Your task to perform on an android device: What's the weather going to be this weekend? Image 0: 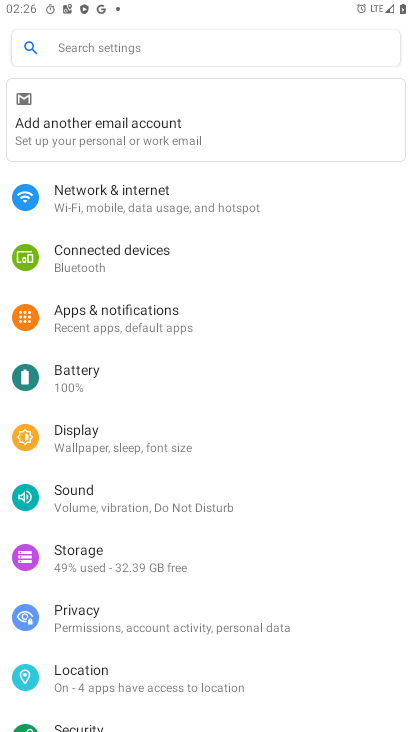
Step 0: press home button
Your task to perform on an android device: What's the weather going to be this weekend? Image 1: 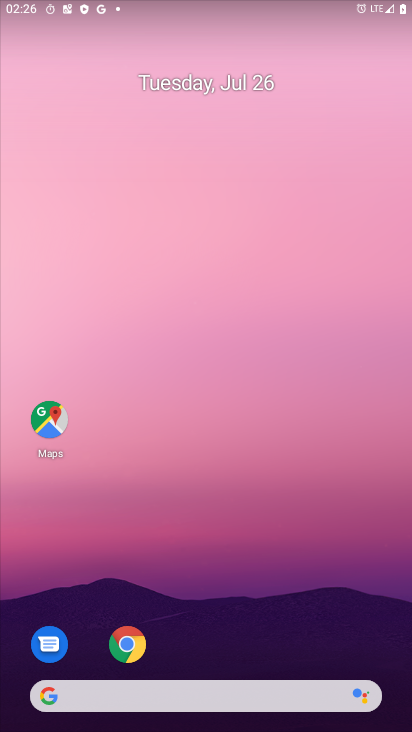
Step 1: click (152, 697)
Your task to perform on an android device: What's the weather going to be this weekend? Image 2: 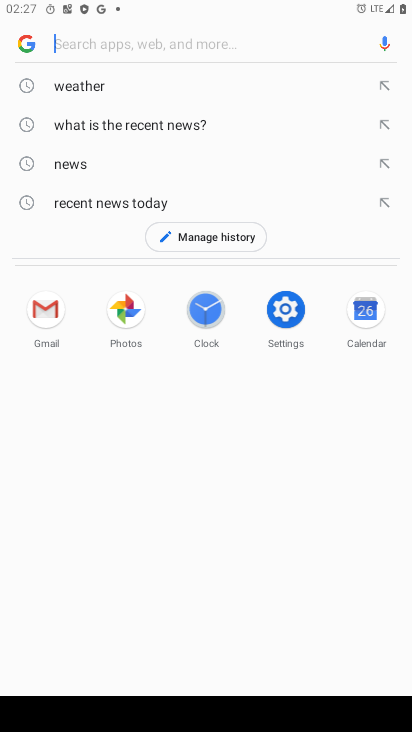
Step 2: click (59, 95)
Your task to perform on an android device: What's the weather going to be this weekend? Image 3: 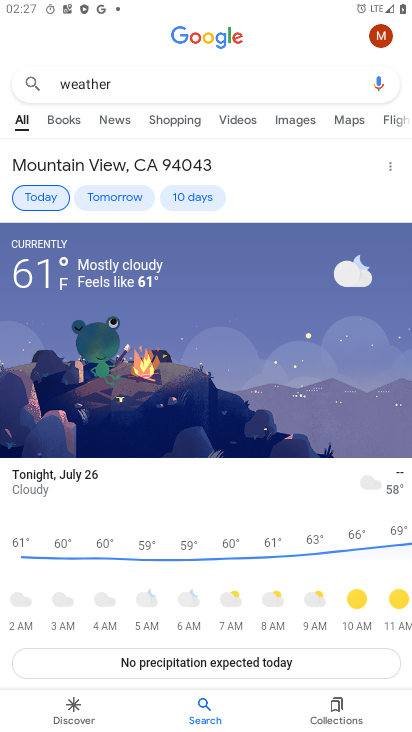
Step 3: drag from (236, 579) to (231, 366)
Your task to perform on an android device: What's the weather going to be this weekend? Image 4: 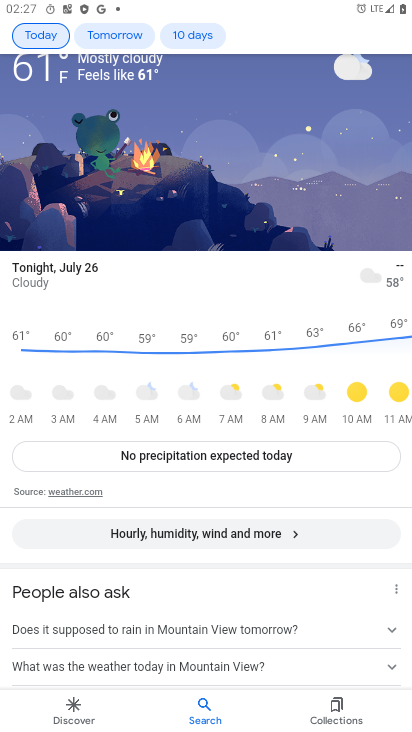
Step 4: drag from (223, 267) to (193, 544)
Your task to perform on an android device: What's the weather going to be this weekend? Image 5: 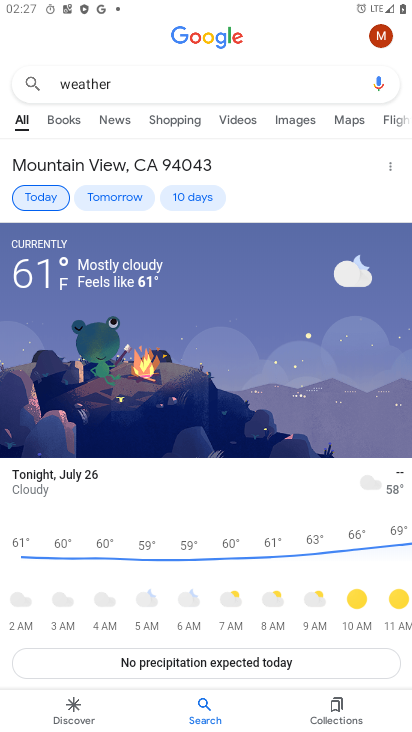
Step 5: click (182, 201)
Your task to perform on an android device: What's the weather going to be this weekend? Image 6: 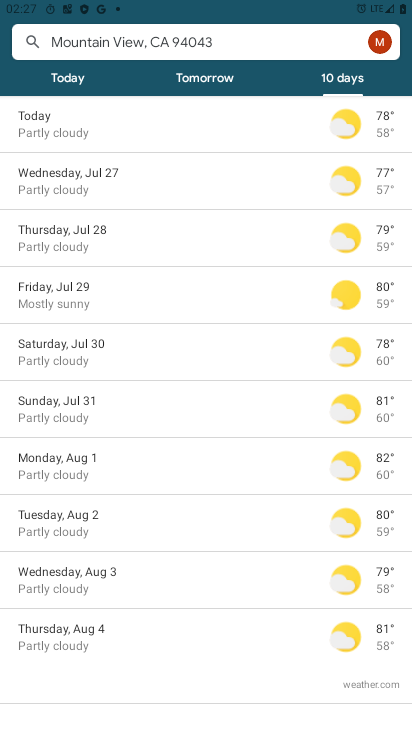
Step 6: task complete